Your task to perform on an android device: turn off translation in the chrome app Image 0: 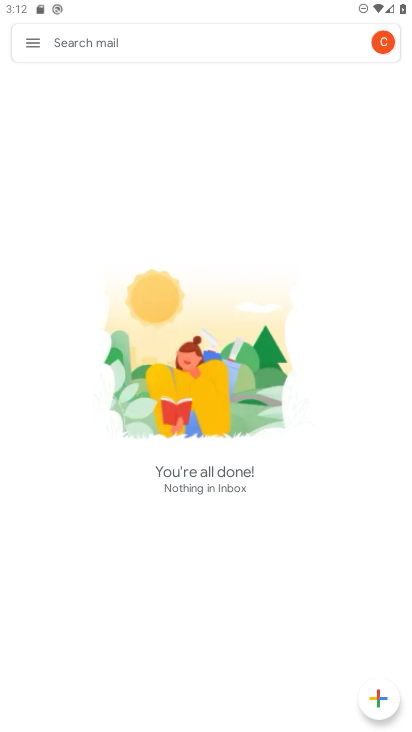
Step 0: press home button
Your task to perform on an android device: turn off translation in the chrome app Image 1: 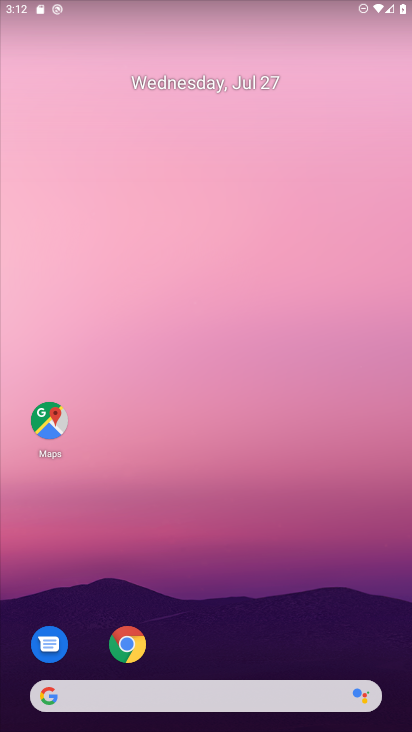
Step 1: drag from (186, 628) to (286, 4)
Your task to perform on an android device: turn off translation in the chrome app Image 2: 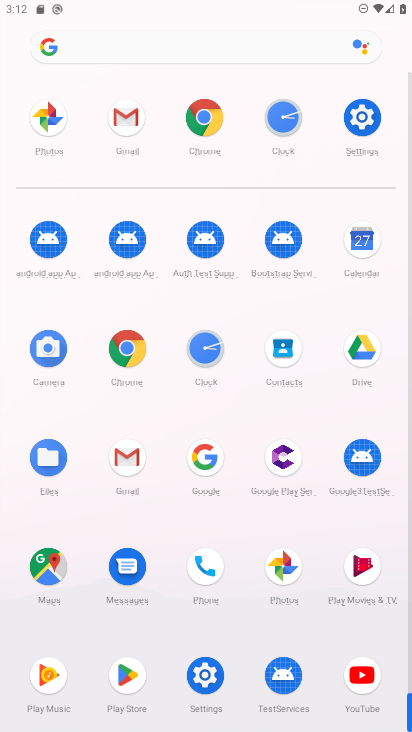
Step 2: click (124, 359)
Your task to perform on an android device: turn off translation in the chrome app Image 3: 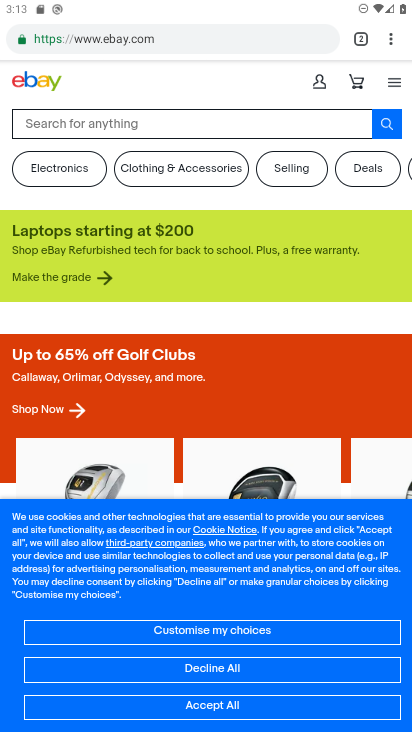
Step 3: click (394, 20)
Your task to perform on an android device: turn off translation in the chrome app Image 4: 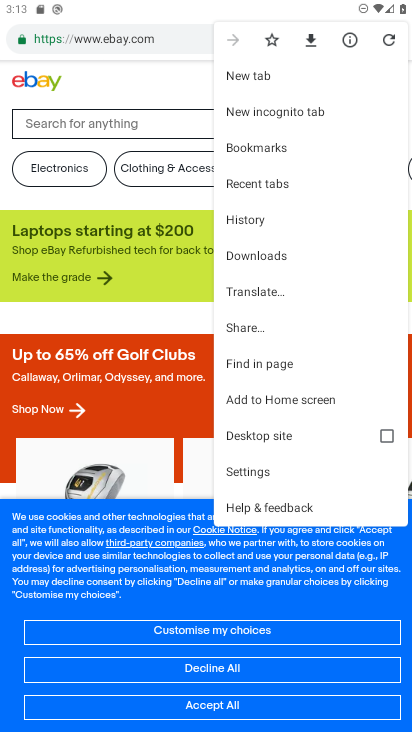
Step 4: click (256, 472)
Your task to perform on an android device: turn off translation in the chrome app Image 5: 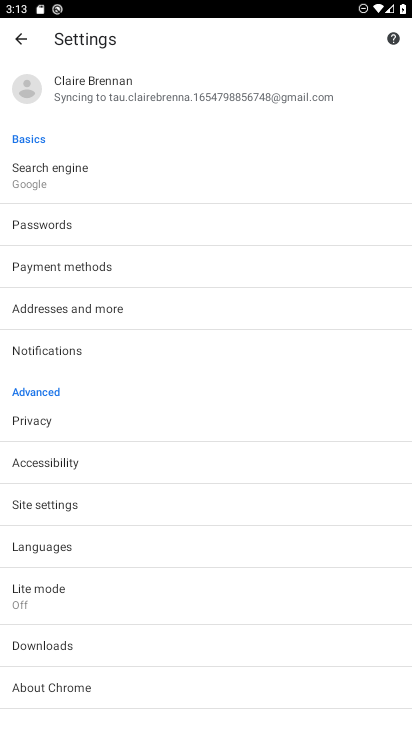
Step 5: click (66, 543)
Your task to perform on an android device: turn off translation in the chrome app Image 6: 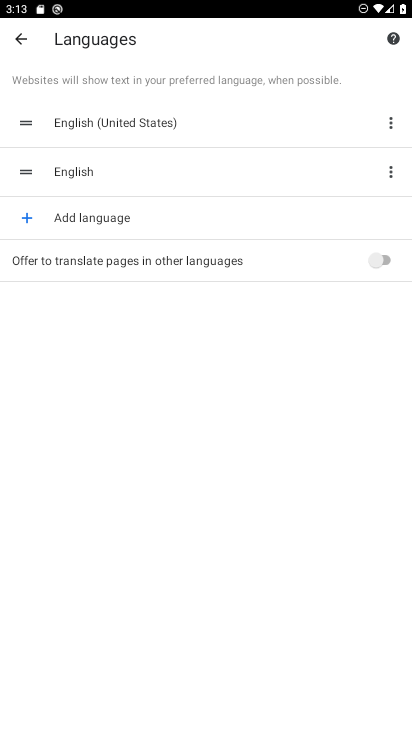
Step 6: task complete